Your task to perform on an android device: Check the news Image 0: 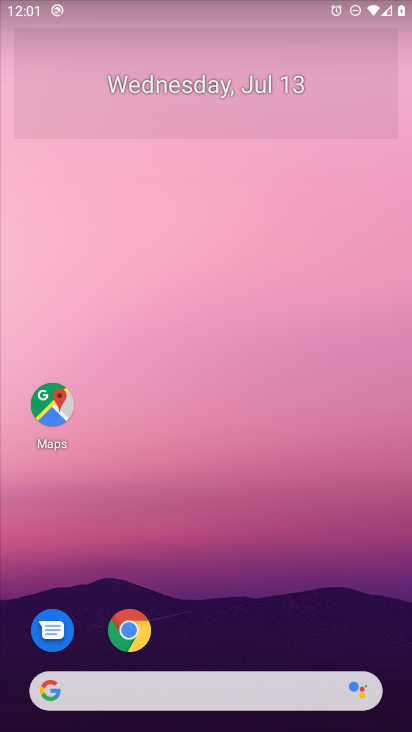
Step 0: type "news"
Your task to perform on an android device: Check the news Image 1: 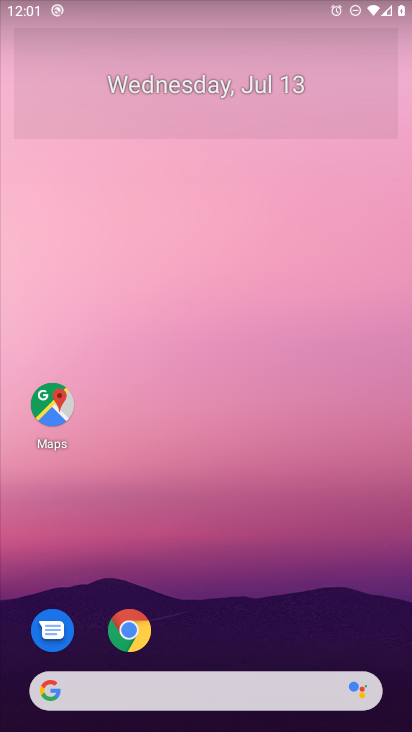
Step 1: click (185, 682)
Your task to perform on an android device: Check the news Image 2: 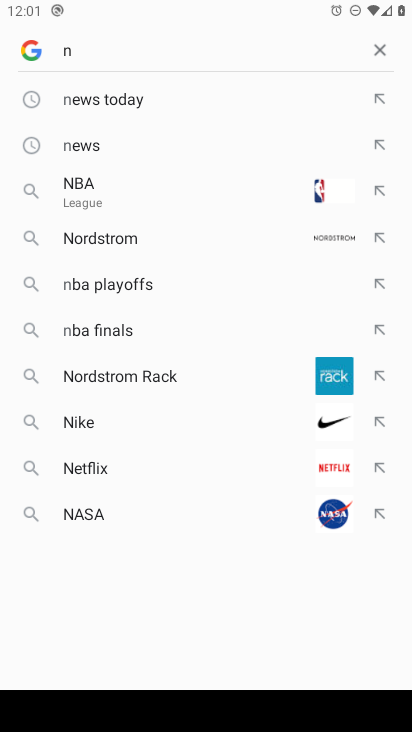
Step 2: click (77, 140)
Your task to perform on an android device: Check the news Image 3: 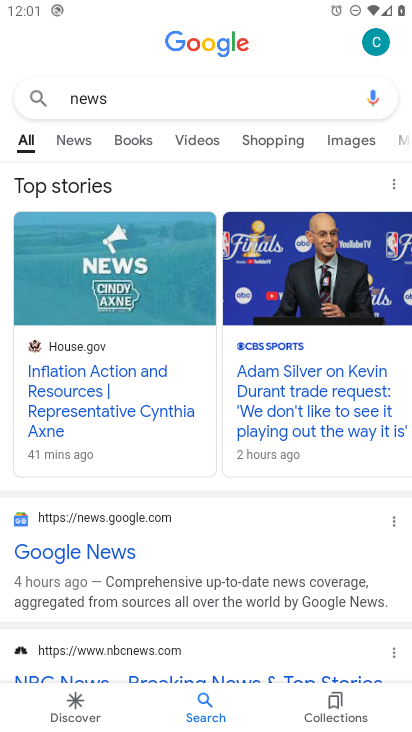
Step 3: task complete